Your task to perform on an android device: move an email to a new category in the gmail app Image 0: 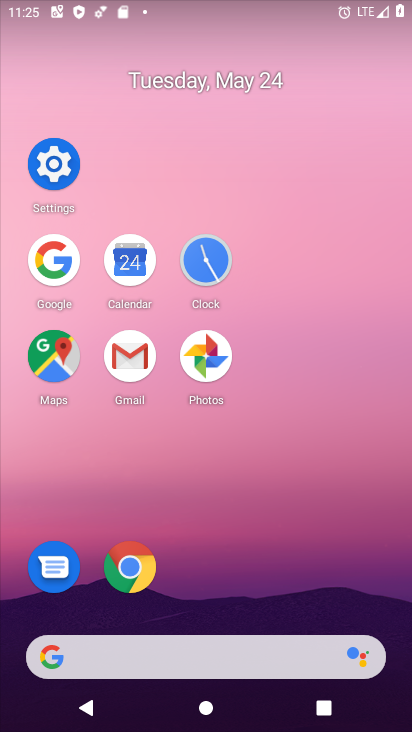
Step 0: click (144, 378)
Your task to perform on an android device: move an email to a new category in the gmail app Image 1: 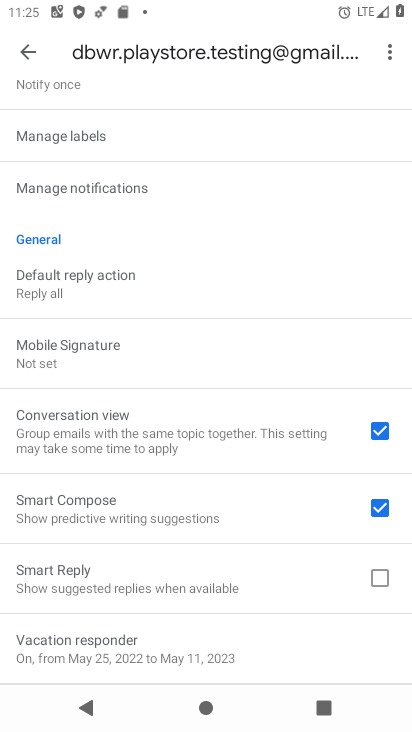
Step 1: click (26, 50)
Your task to perform on an android device: move an email to a new category in the gmail app Image 2: 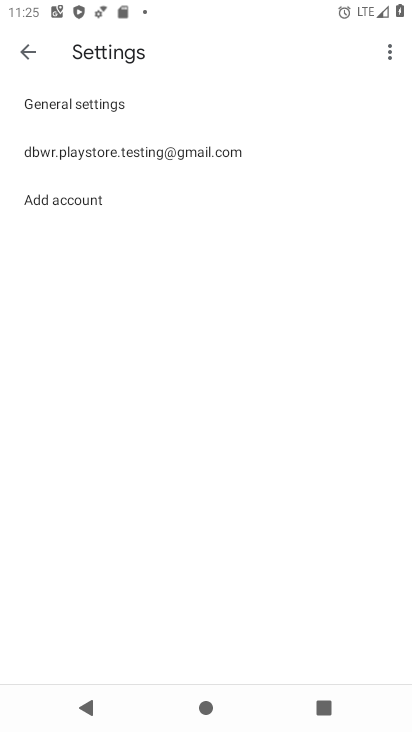
Step 2: click (26, 50)
Your task to perform on an android device: move an email to a new category in the gmail app Image 3: 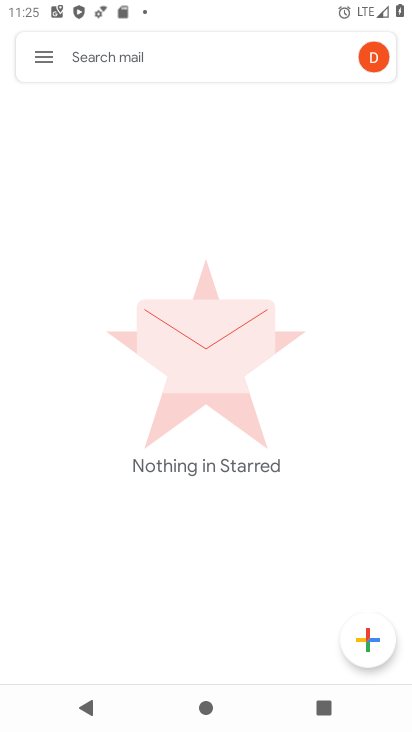
Step 3: click (55, 60)
Your task to perform on an android device: move an email to a new category in the gmail app Image 4: 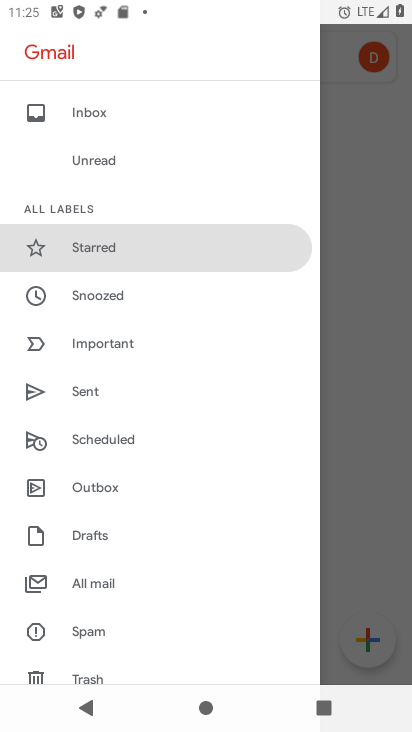
Step 4: click (142, 578)
Your task to perform on an android device: move an email to a new category in the gmail app Image 5: 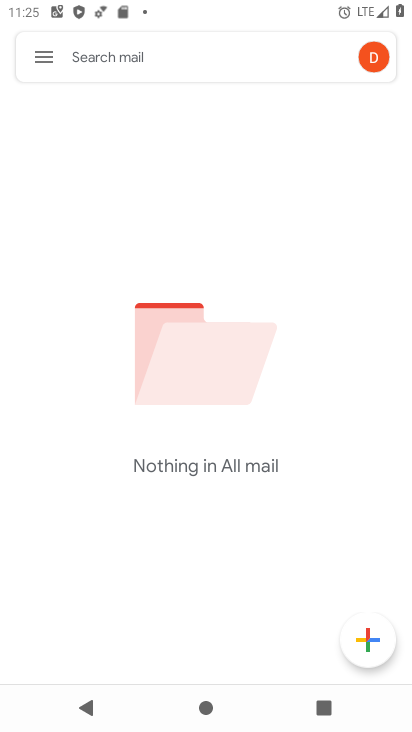
Step 5: task complete